Your task to perform on an android device: set the timer Image 0: 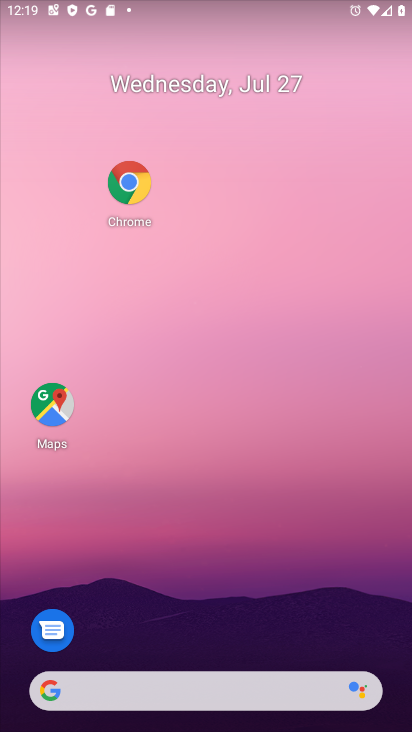
Step 0: drag from (168, 726) to (185, 271)
Your task to perform on an android device: set the timer Image 1: 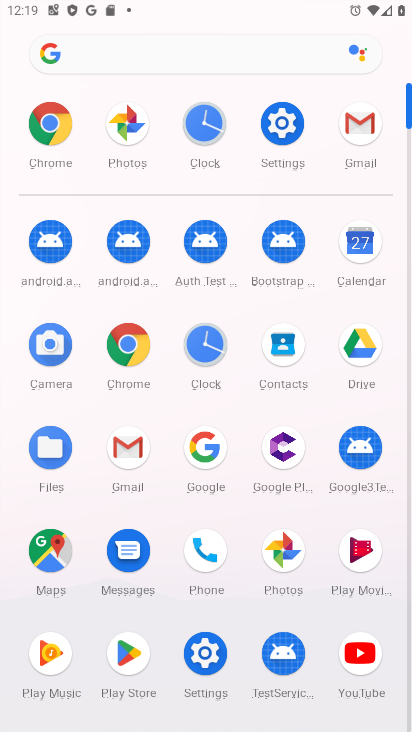
Step 1: click (195, 353)
Your task to perform on an android device: set the timer Image 2: 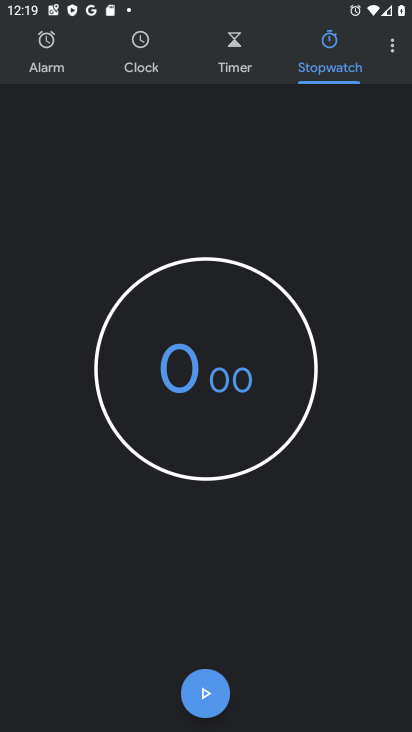
Step 2: click (229, 43)
Your task to perform on an android device: set the timer Image 3: 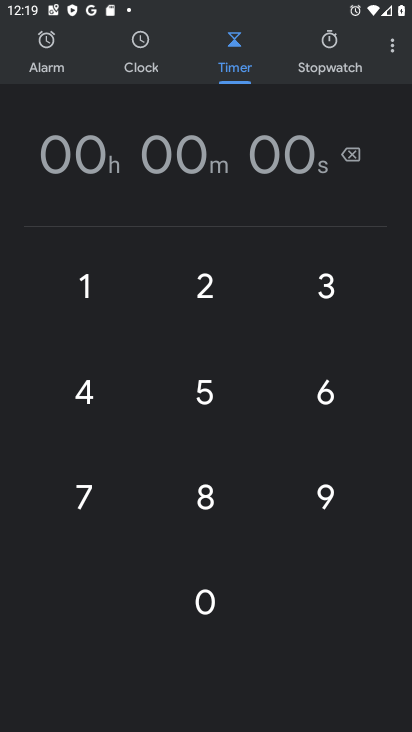
Step 3: task complete